Your task to perform on an android device: What's on the menu at Denny's? Image 0: 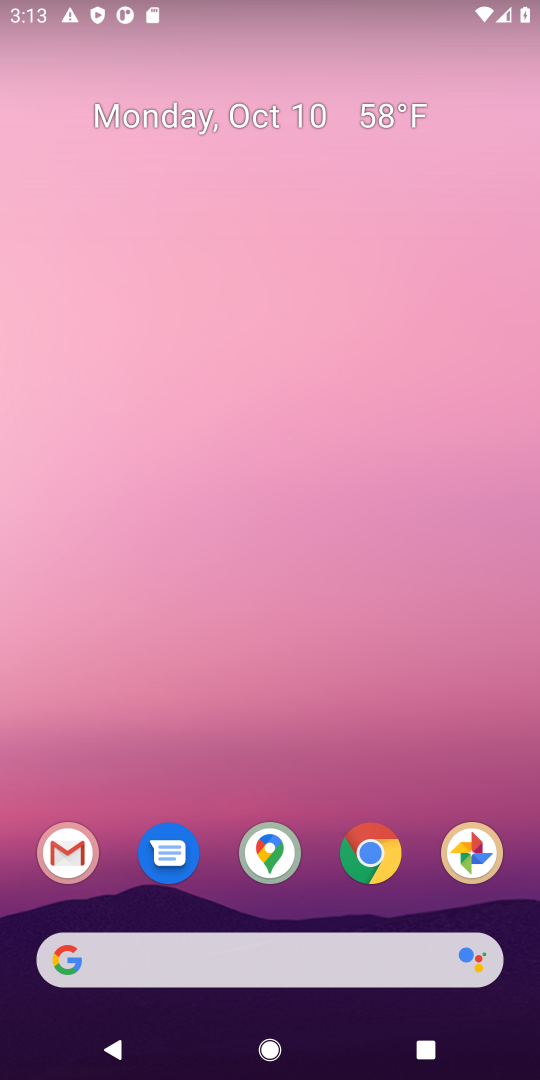
Step 0: click (289, 959)
Your task to perform on an android device: What's on the menu at Denny's? Image 1: 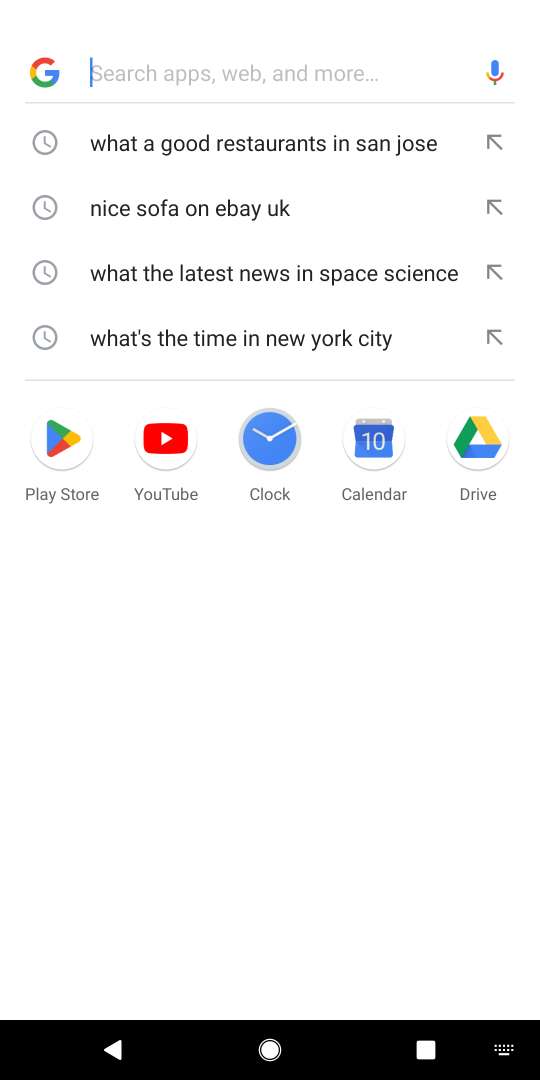
Step 1: click (133, 73)
Your task to perform on an android device: What's on the menu at Denny's? Image 2: 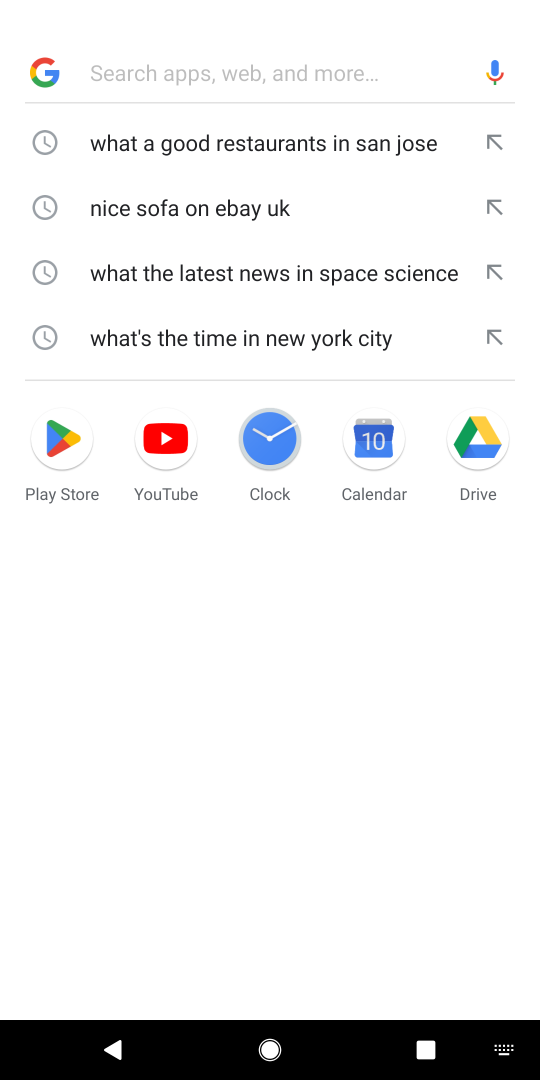
Step 2: type "What's on the menu at Denny's?"
Your task to perform on an android device: What's on the menu at Denny's? Image 3: 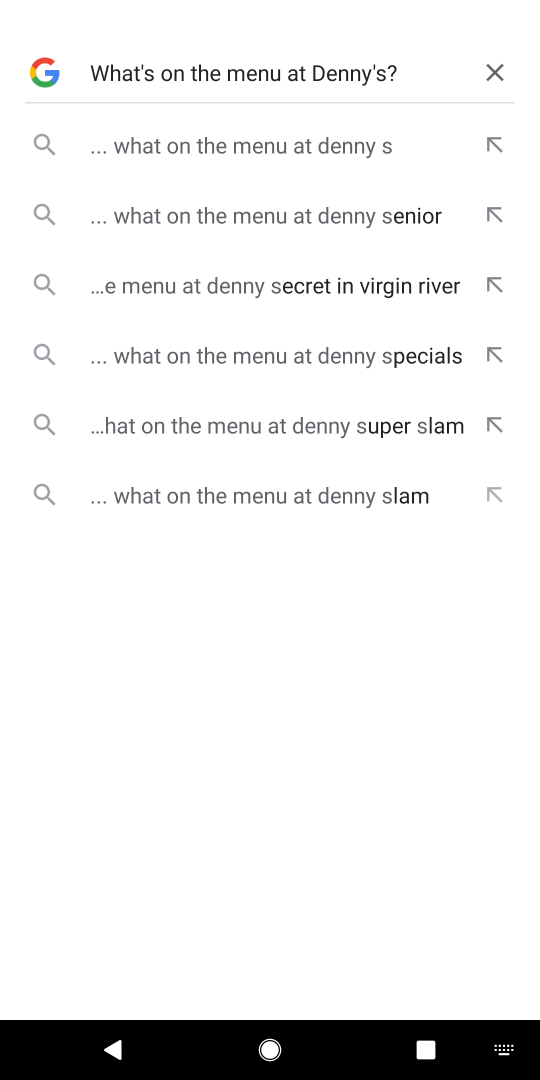
Step 3: click (365, 154)
Your task to perform on an android device: What's on the menu at Denny's? Image 4: 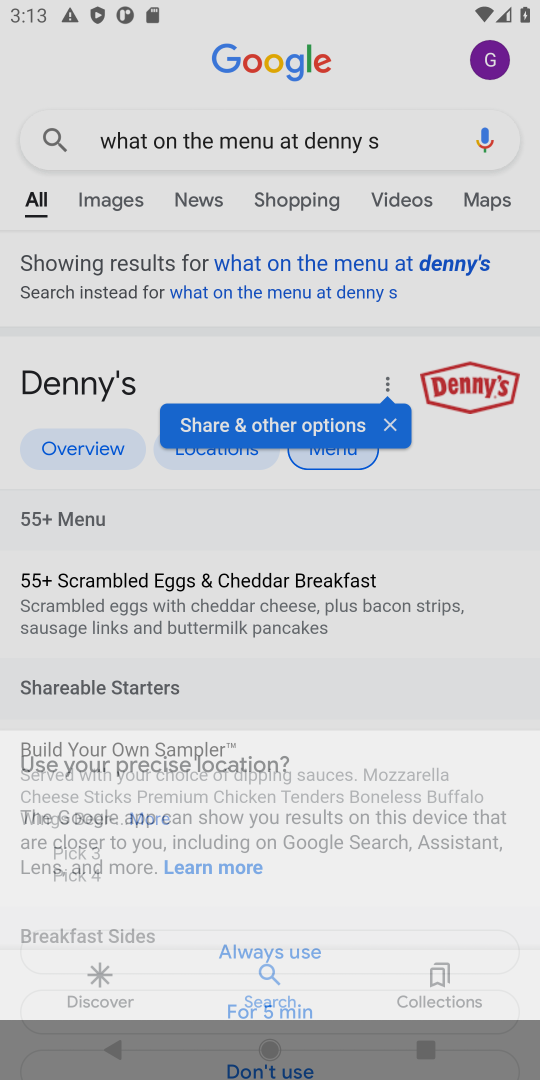
Step 4: drag from (256, 923) to (376, 389)
Your task to perform on an android device: What's on the menu at Denny's? Image 5: 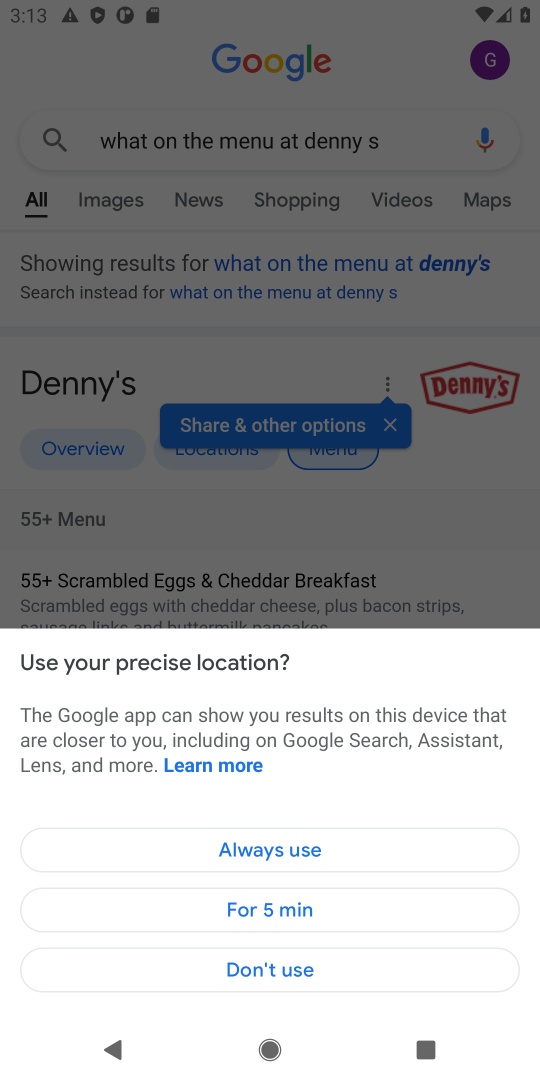
Step 5: click (263, 964)
Your task to perform on an android device: What's on the menu at Denny's? Image 6: 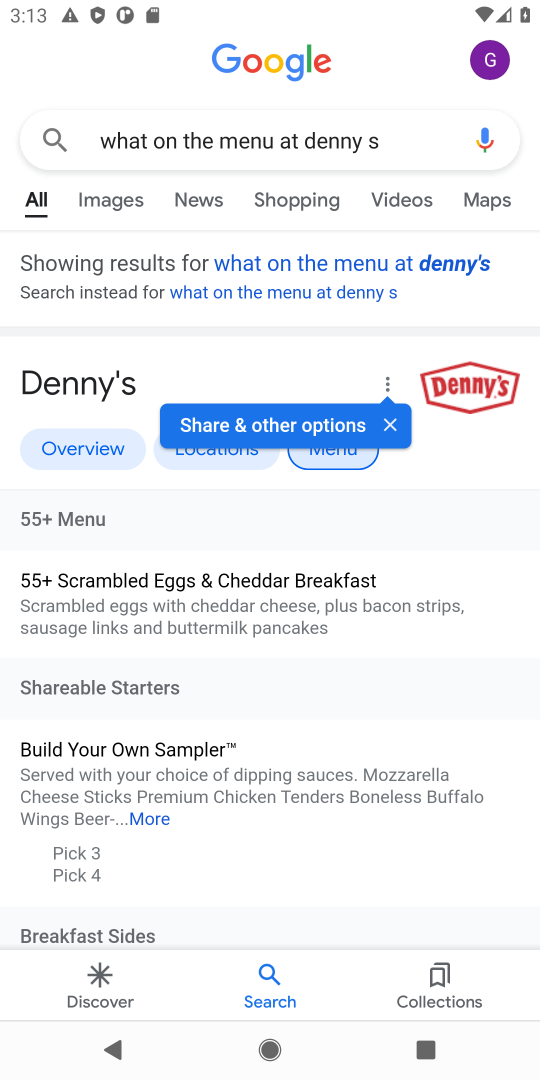
Step 6: task complete